Your task to perform on an android device: turn off picture-in-picture Image 0: 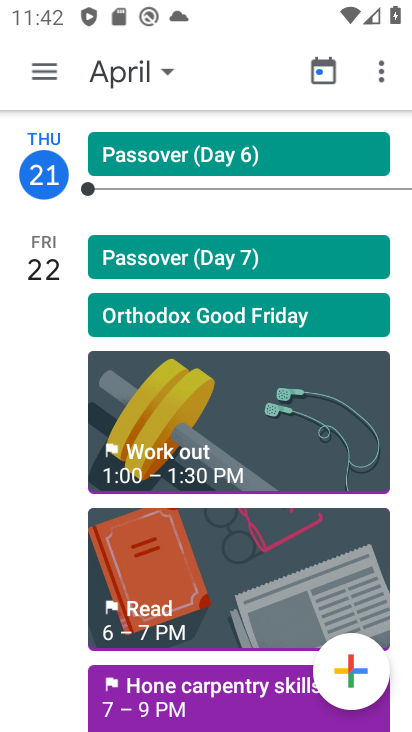
Step 0: press home button
Your task to perform on an android device: turn off picture-in-picture Image 1: 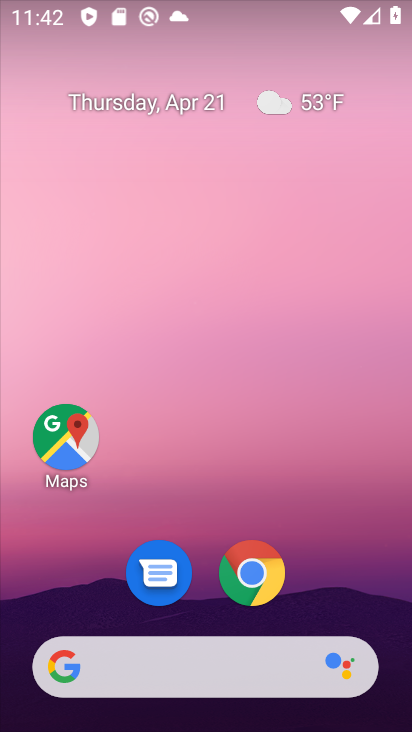
Step 1: click (180, 660)
Your task to perform on an android device: turn off picture-in-picture Image 2: 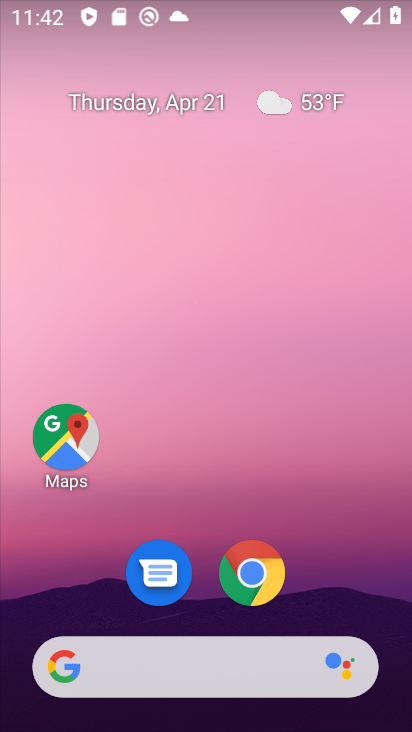
Step 2: click (245, 584)
Your task to perform on an android device: turn off picture-in-picture Image 3: 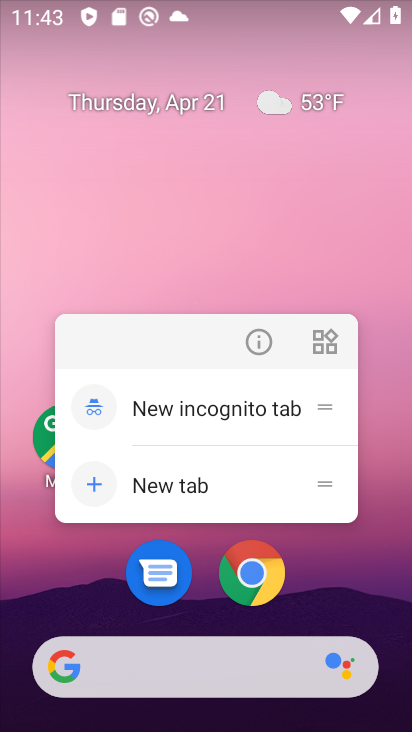
Step 3: click (255, 340)
Your task to perform on an android device: turn off picture-in-picture Image 4: 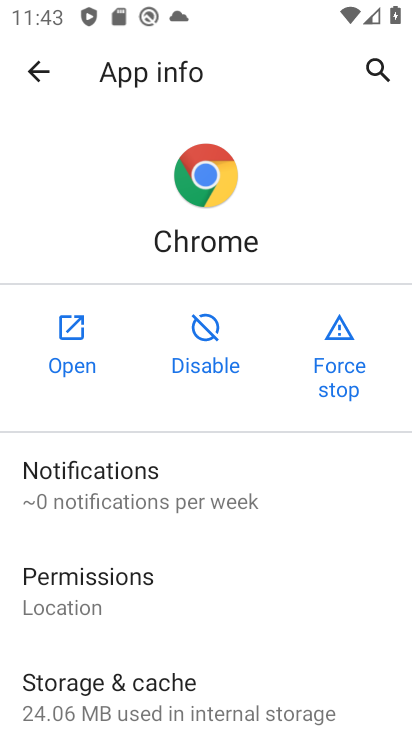
Step 4: drag from (163, 622) to (382, 257)
Your task to perform on an android device: turn off picture-in-picture Image 5: 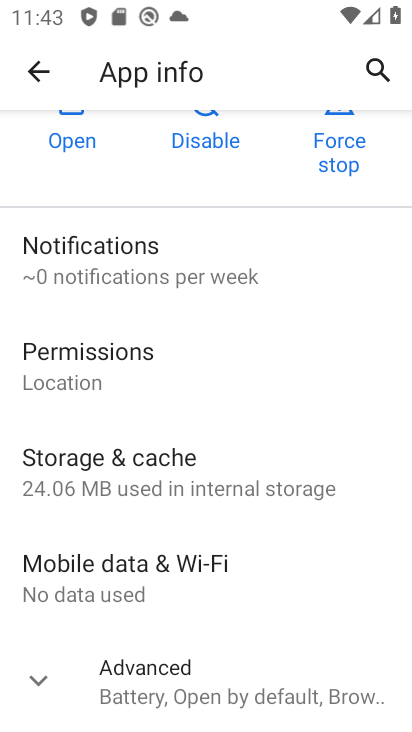
Step 5: click (117, 674)
Your task to perform on an android device: turn off picture-in-picture Image 6: 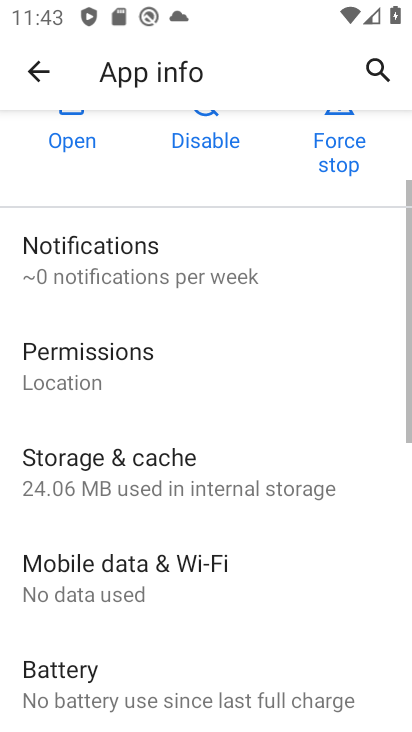
Step 6: drag from (202, 607) to (390, 169)
Your task to perform on an android device: turn off picture-in-picture Image 7: 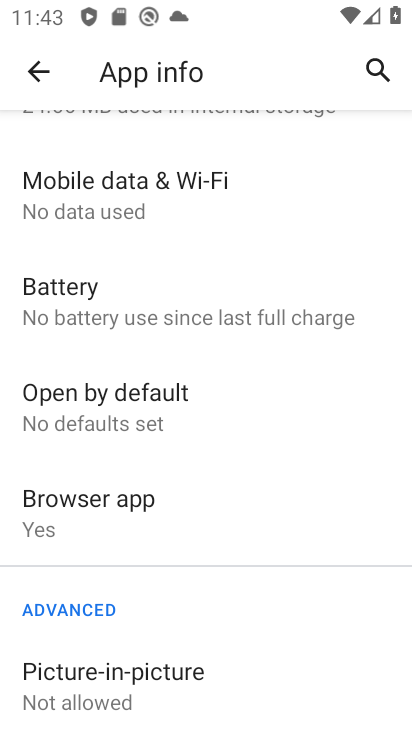
Step 7: drag from (194, 580) to (360, 276)
Your task to perform on an android device: turn off picture-in-picture Image 8: 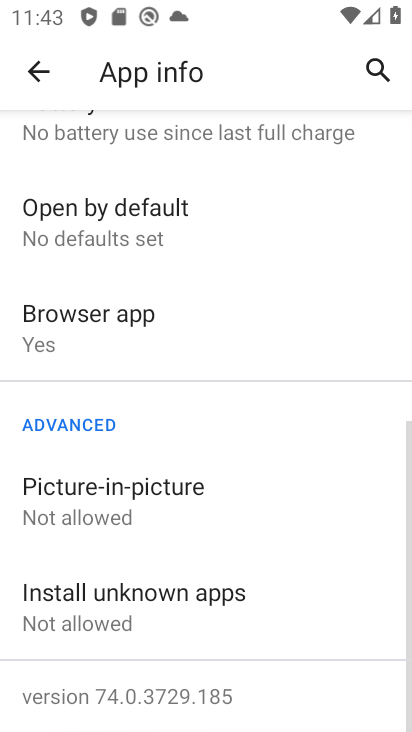
Step 8: click (112, 484)
Your task to perform on an android device: turn off picture-in-picture Image 9: 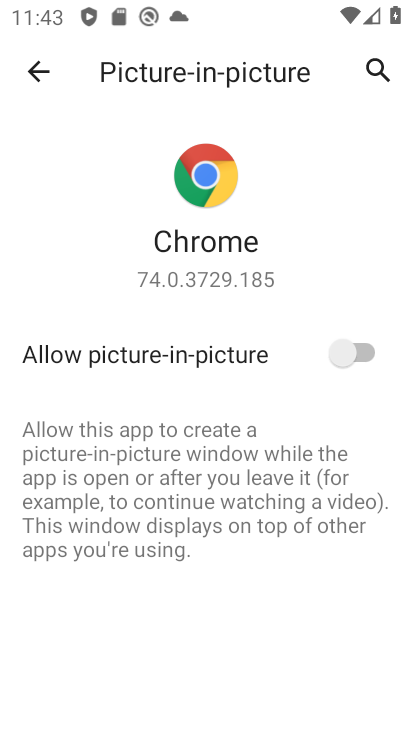
Step 9: task complete